Your task to perform on an android device: visit the assistant section in the google photos Image 0: 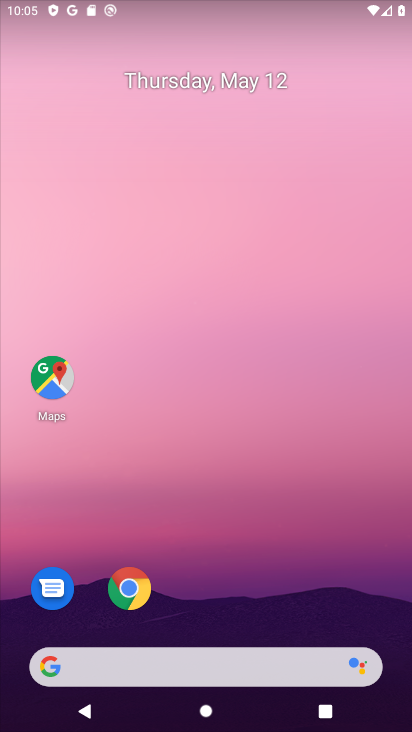
Step 0: drag from (231, 633) to (244, 226)
Your task to perform on an android device: visit the assistant section in the google photos Image 1: 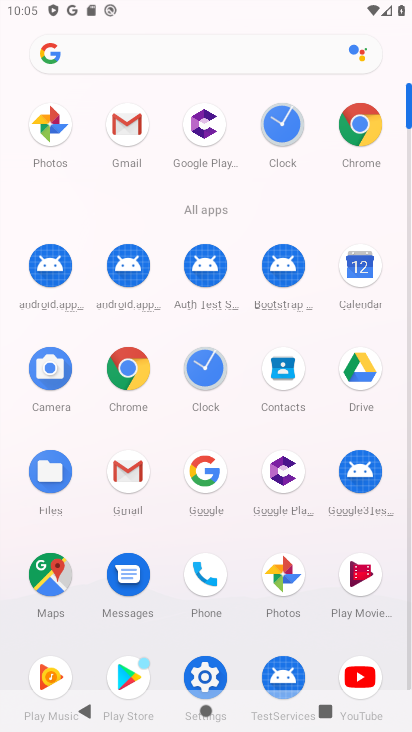
Step 1: click (281, 581)
Your task to perform on an android device: visit the assistant section in the google photos Image 2: 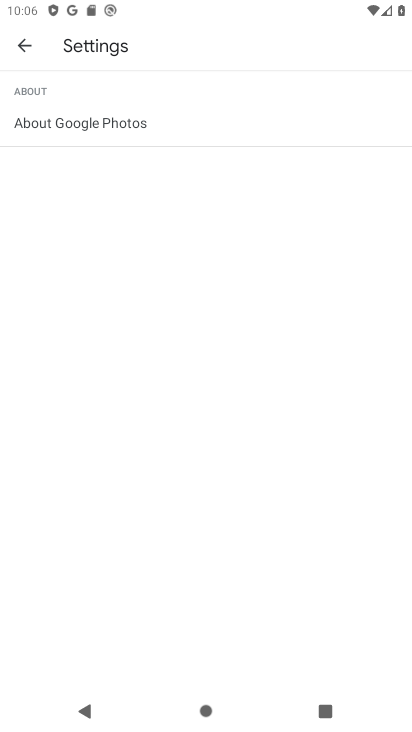
Step 2: click (24, 44)
Your task to perform on an android device: visit the assistant section in the google photos Image 3: 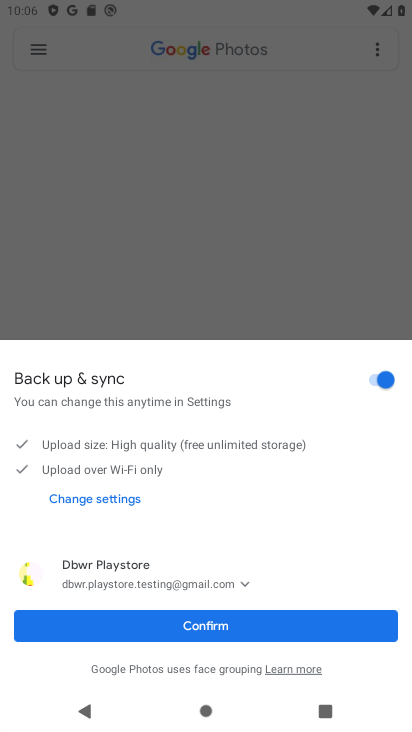
Step 3: click (204, 630)
Your task to perform on an android device: visit the assistant section in the google photos Image 4: 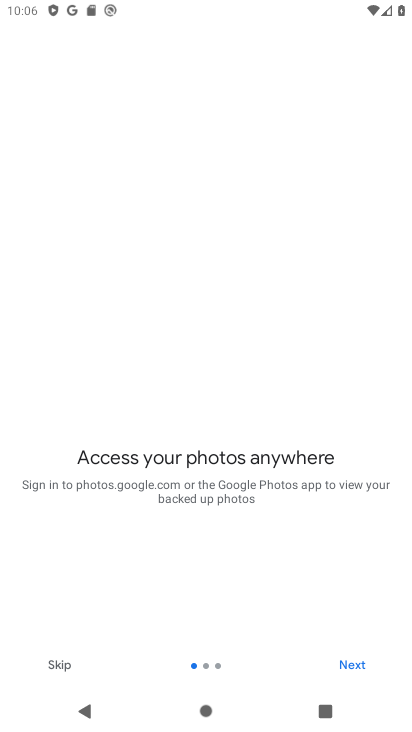
Step 4: click (358, 658)
Your task to perform on an android device: visit the assistant section in the google photos Image 5: 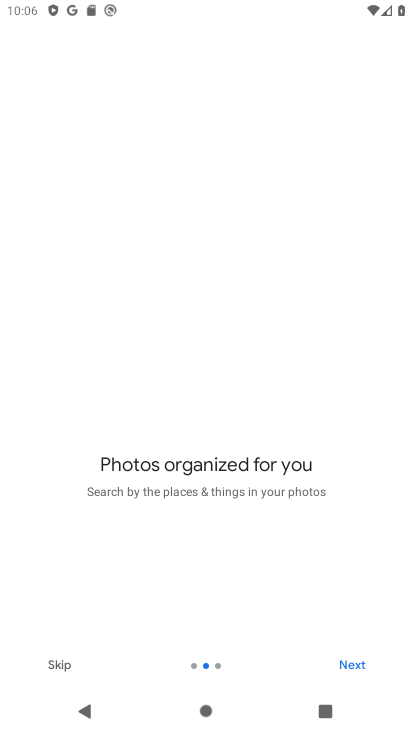
Step 5: click (356, 665)
Your task to perform on an android device: visit the assistant section in the google photos Image 6: 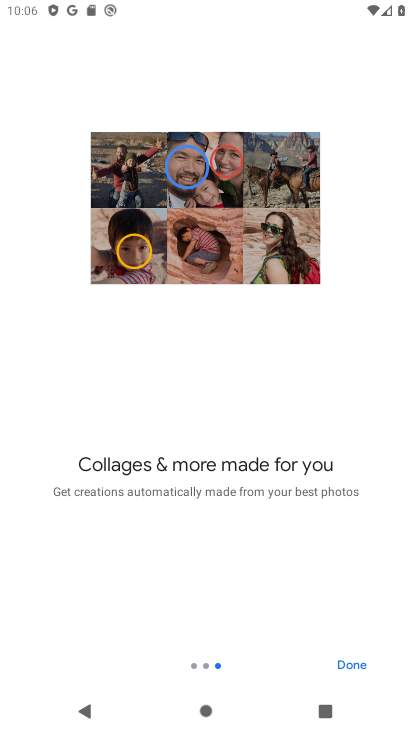
Step 6: click (356, 665)
Your task to perform on an android device: visit the assistant section in the google photos Image 7: 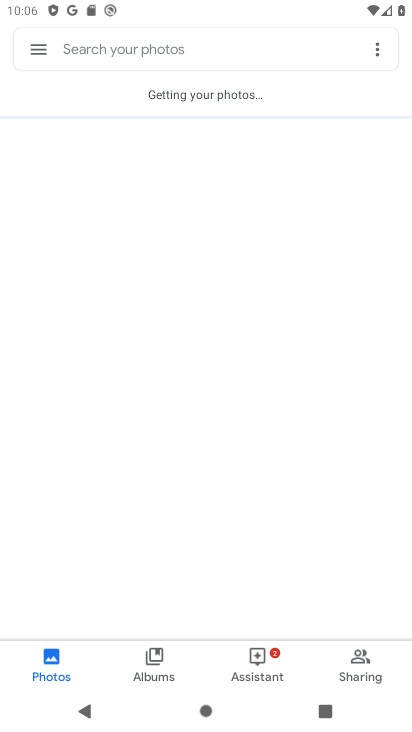
Step 7: click (258, 653)
Your task to perform on an android device: visit the assistant section in the google photos Image 8: 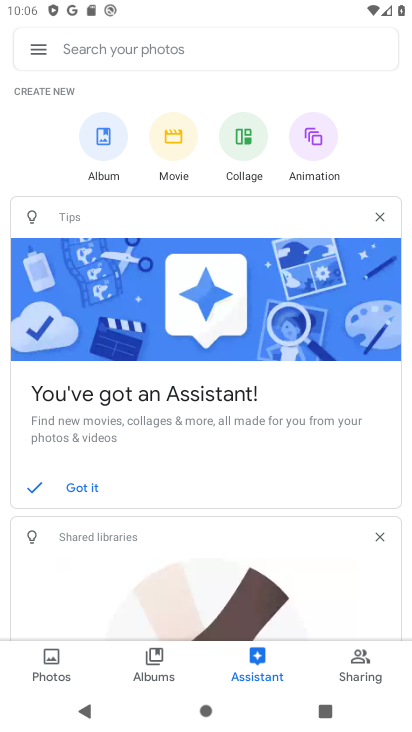
Step 8: task complete